Your task to perform on an android device: What is the news today? Image 0: 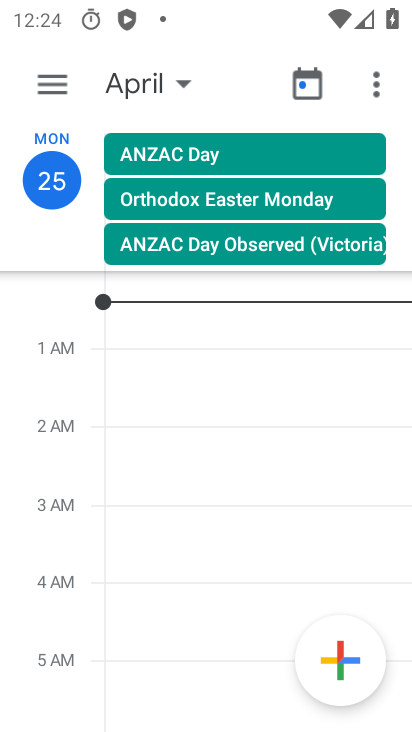
Step 0: press home button
Your task to perform on an android device: What is the news today? Image 1: 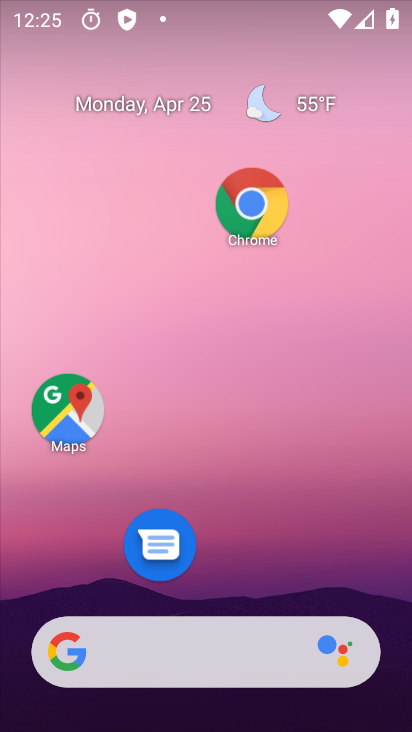
Step 1: drag from (269, 694) to (272, 179)
Your task to perform on an android device: What is the news today? Image 2: 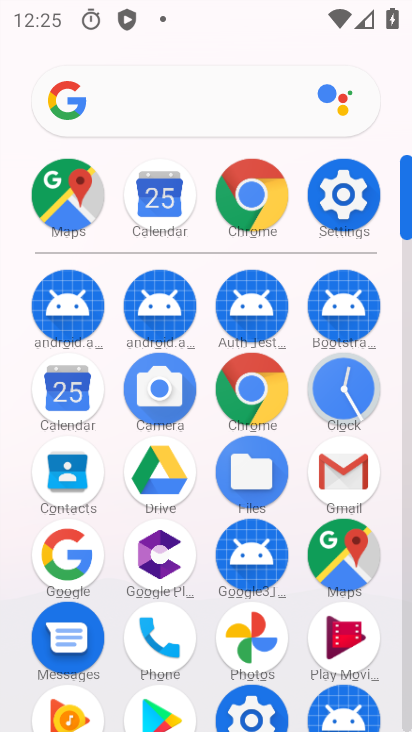
Step 2: click (122, 102)
Your task to perform on an android device: What is the news today? Image 3: 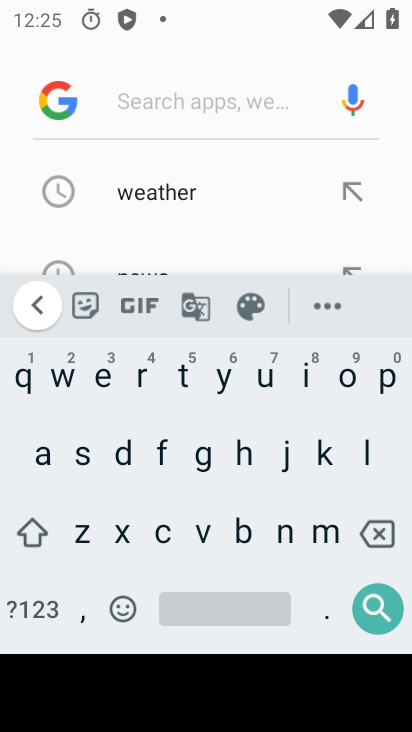
Step 3: click (282, 532)
Your task to perform on an android device: What is the news today? Image 4: 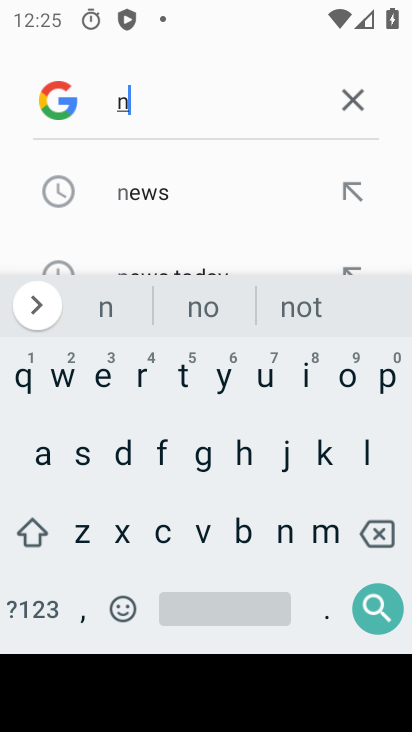
Step 4: click (157, 208)
Your task to perform on an android device: What is the news today? Image 5: 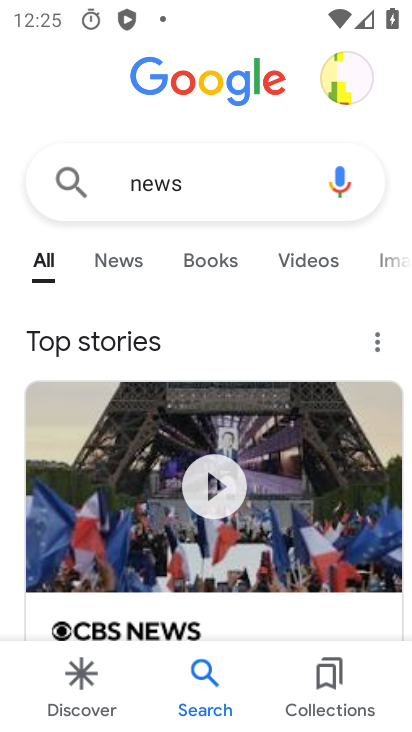
Step 5: task complete